Your task to perform on an android device: visit the assistant section in the google photos Image 0: 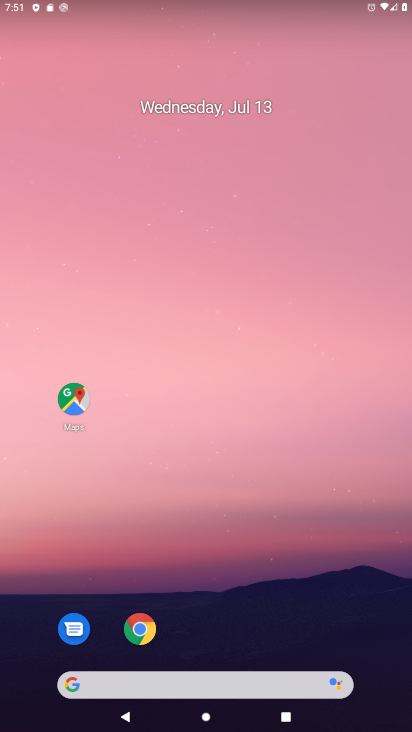
Step 0: drag from (297, 511) to (347, 142)
Your task to perform on an android device: visit the assistant section in the google photos Image 1: 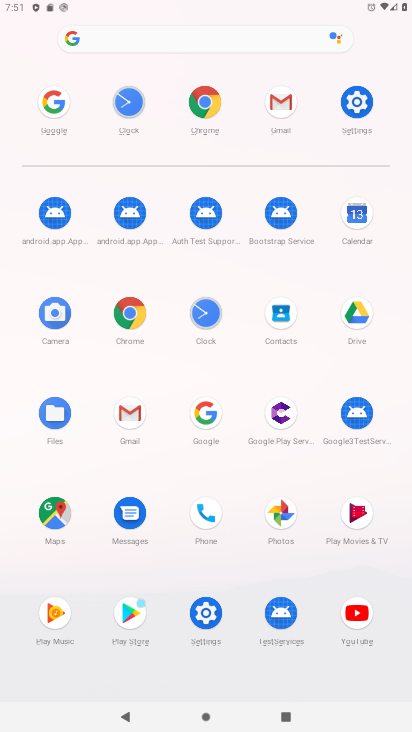
Step 1: click (292, 515)
Your task to perform on an android device: visit the assistant section in the google photos Image 2: 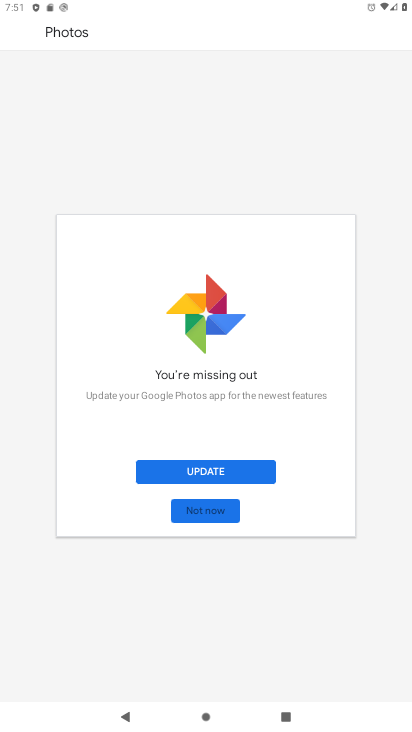
Step 2: click (192, 471)
Your task to perform on an android device: visit the assistant section in the google photos Image 3: 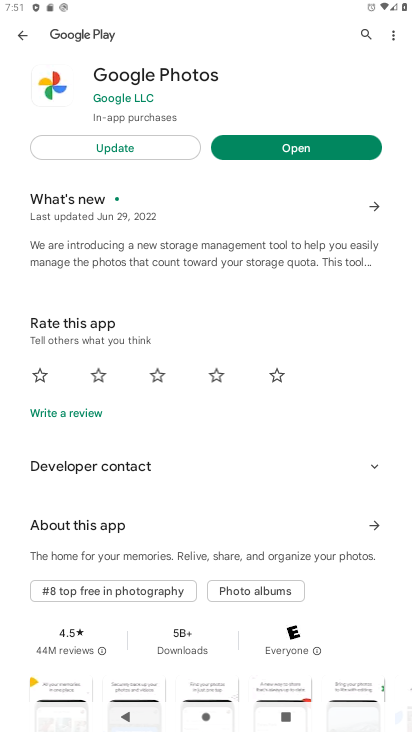
Step 3: click (98, 140)
Your task to perform on an android device: visit the assistant section in the google photos Image 4: 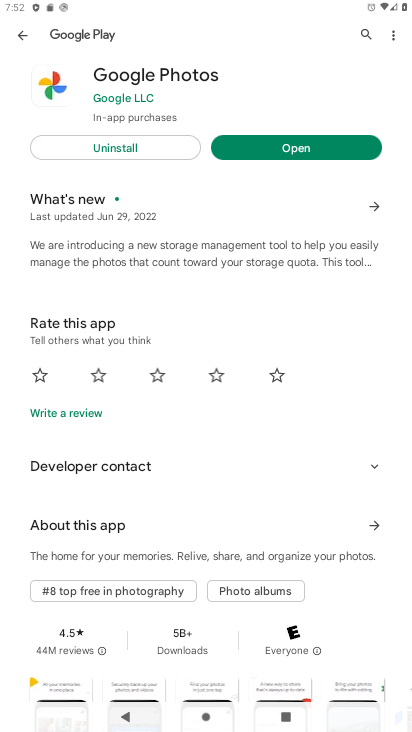
Step 4: click (271, 135)
Your task to perform on an android device: visit the assistant section in the google photos Image 5: 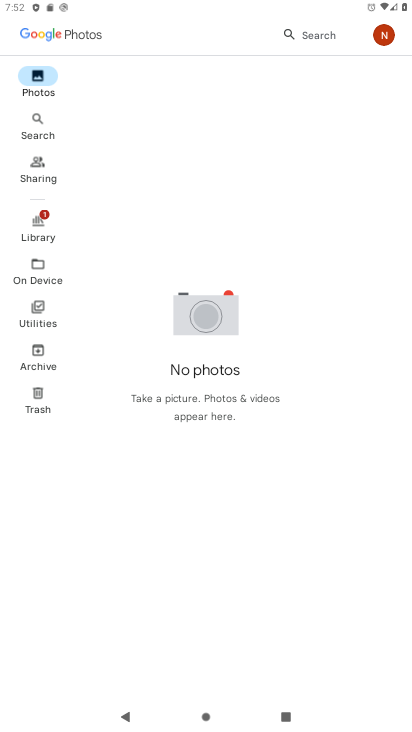
Step 5: task complete